Your task to perform on an android device: allow notifications from all sites in the chrome app Image 0: 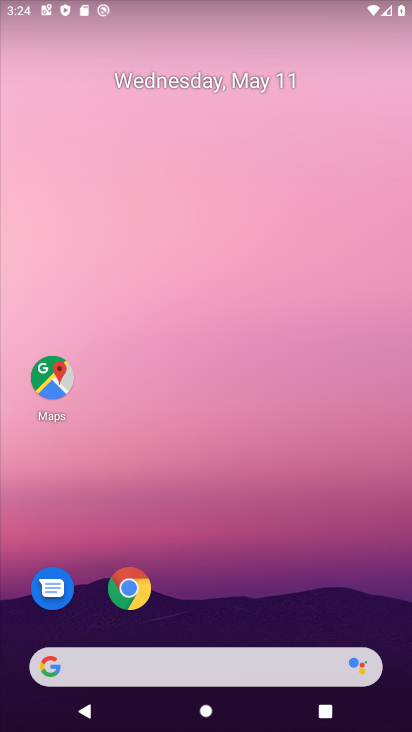
Step 0: drag from (225, 529) to (291, 62)
Your task to perform on an android device: allow notifications from all sites in the chrome app Image 1: 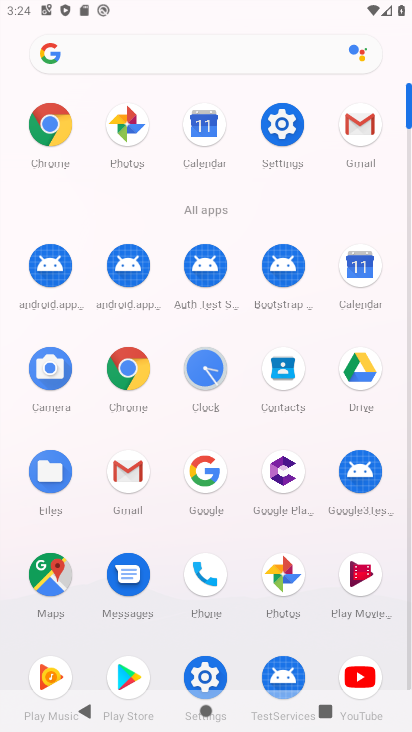
Step 1: click (125, 370)
Your task to perform on an android device: allow notifications from all sites in the chrome app Image 2: 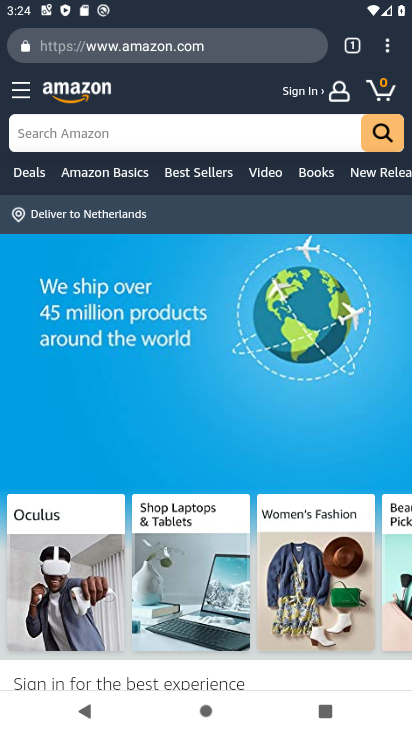
Step 2: click (388, 54)
Your task to perform on an android device: allow notifications from all sites in the chrome app Image 3: 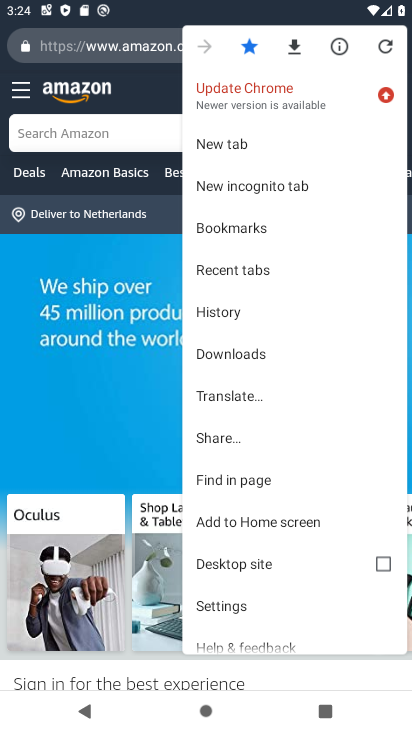
Step 3: click (230, 607)
Your task to perform on an android device: allow notifications from all sites in the chrome app Image 4: 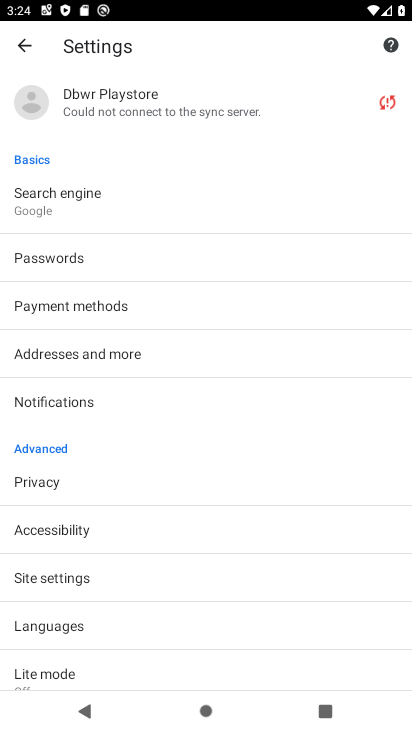
Step 4: click (83, 406)
Your task to perform on an android device: allow notifications from all sites in the chrome app Image 5: 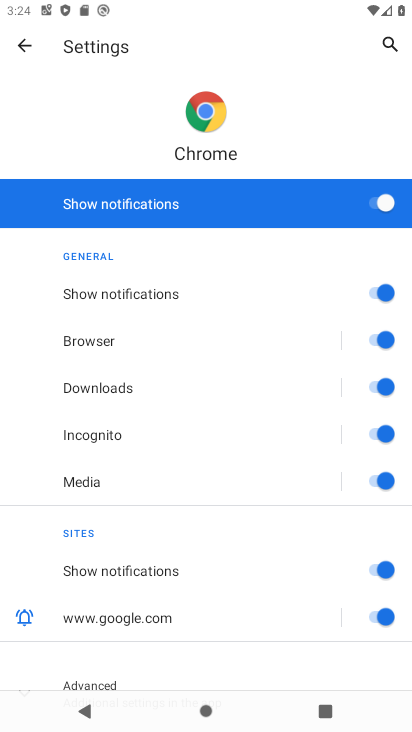
Step 5: task complete